Your task to perform on an android device: Open maps Image 0: 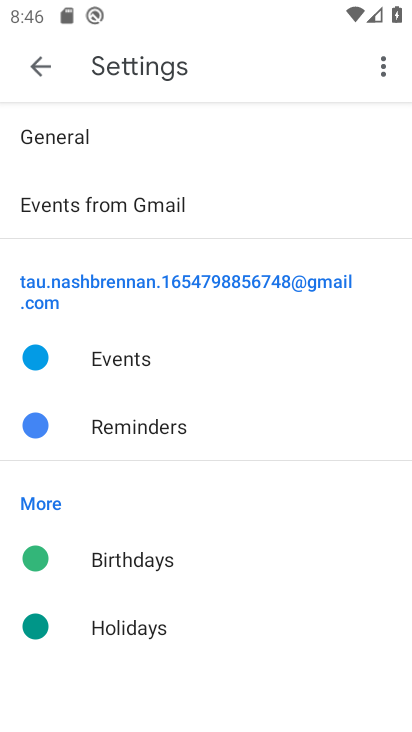
Step 0: press home button
Your task to perform on an android device: Open maps Image 1: 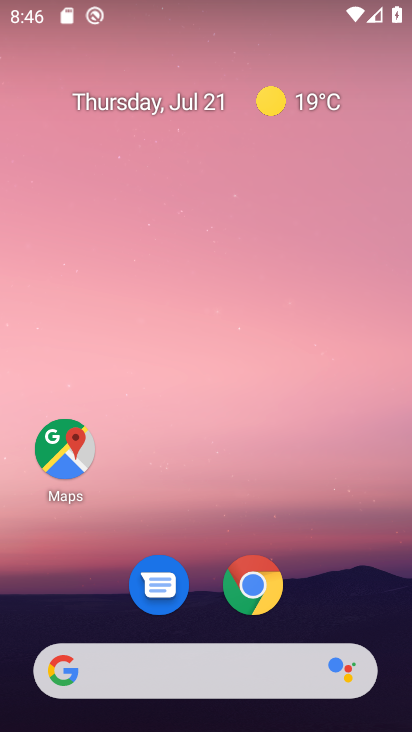
Step 1: click (70, 449)
Your task to perform on an android device: Open maps Image 2: 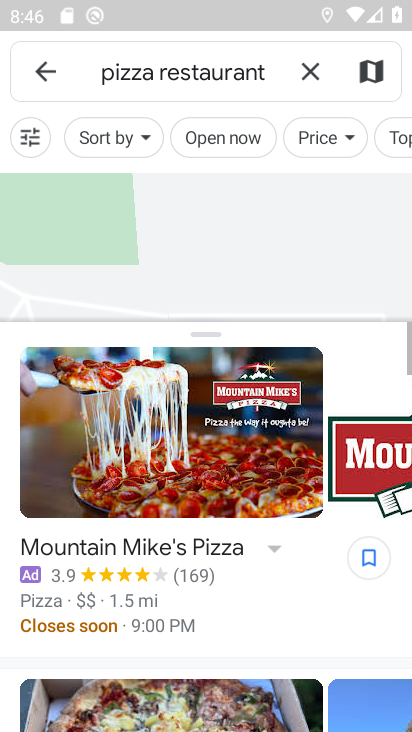
Step 2: click (311, 66)
Your task to perform on an android device: Open maps Image 3: 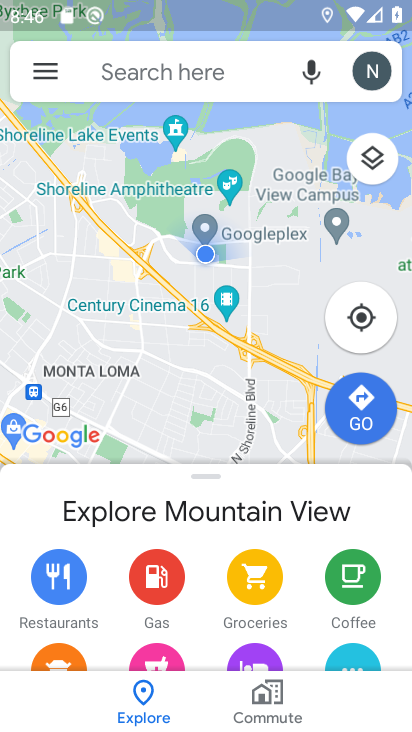
Step 3: task complete